Your task to perform on an android device: Do I have any events today? Image 0: 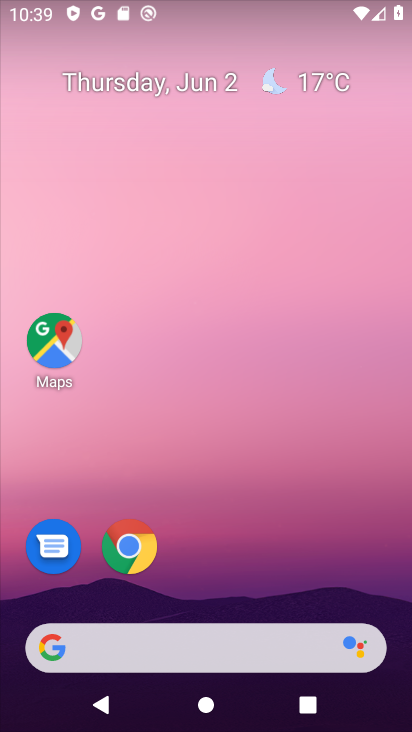
Step 0: drag from (197, 189) to (189, 19)
Your task to perform on an android device: Do I have any events today? Image 1: 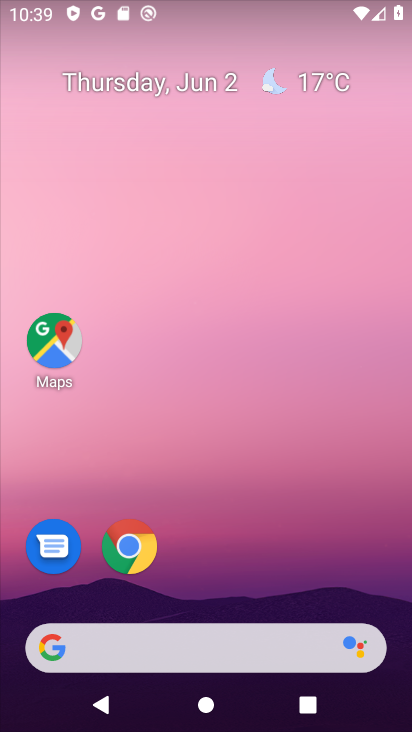
Step 1: drag from (258, 535) to (211, 23)
Your task to perform on an android device: Do I have any events today? Image 2: 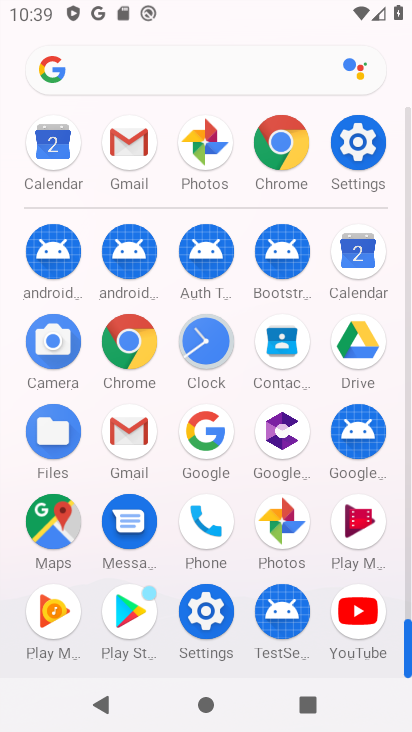
Step 2: drag from (10, 347) to (4, 146)
Your task to perform on an android device: Do I have any events today? Image 3: 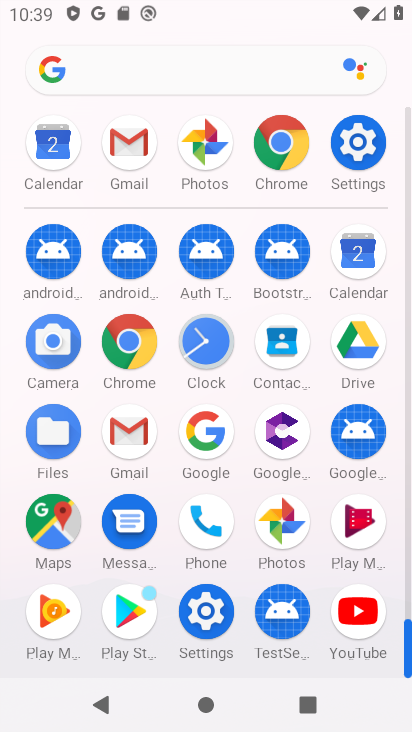
Step 3: click (357, 252)
Your task to perform on an android device: Do I have any events today? Image 4: 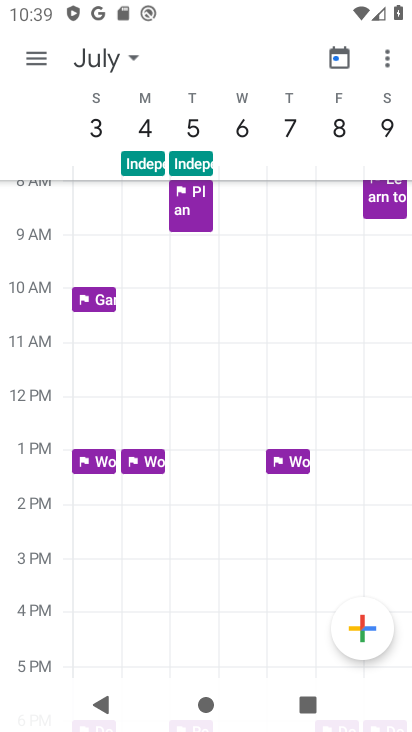
Step 4: click (335, 54)
Your task to perform on an android device: Do I have any events today? Image 5: 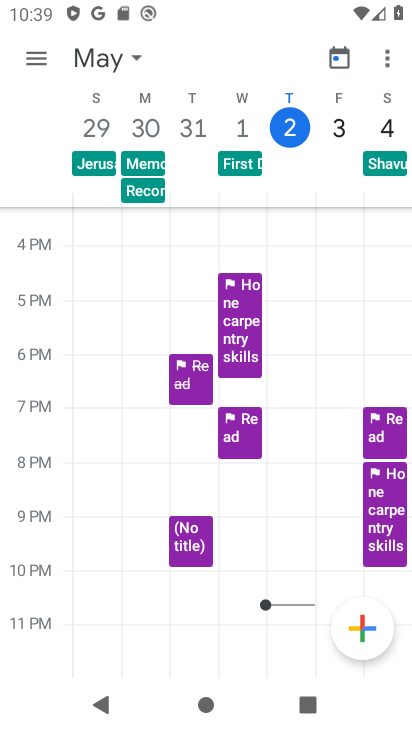
Step 5: click (292, 123)
Your task to perform on an android device: Do I have any events today? Image 6: 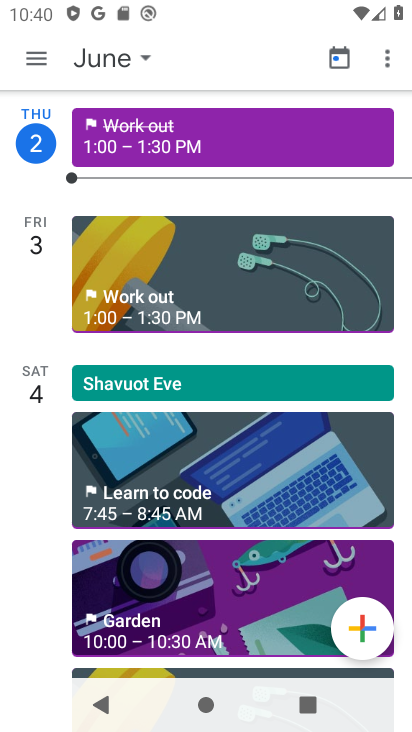
Step 6: task complete